Your task to perform on an android device: Go to eBay Image 0: 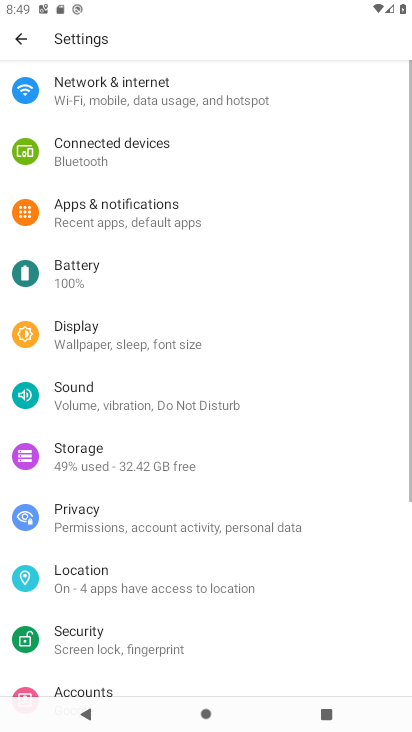
Step 0: press home button
Your task to perform on an android device: Go to eBay Image 1: 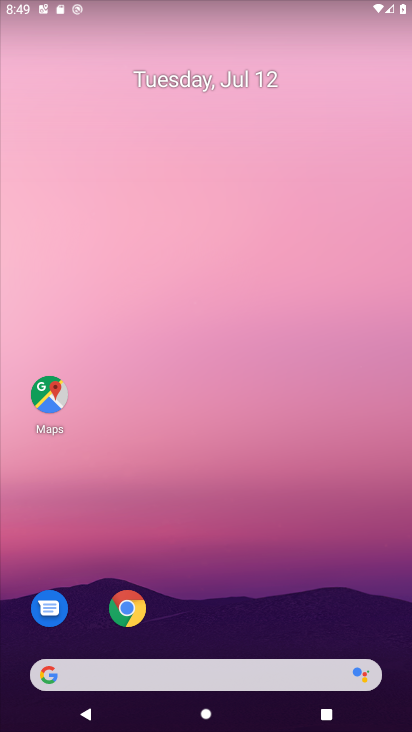
Step 1: click (121, 610)
Your task to perform on an android device: Go to eBay Image 2: 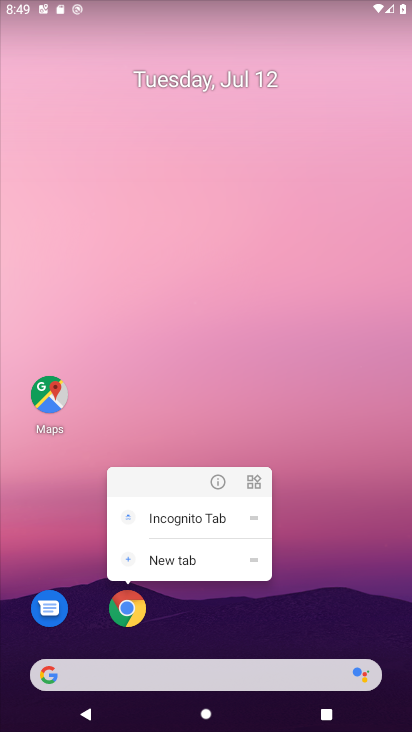
Step 2: click (121, 610)
Your task to perform on an android device: Go to eBay Image 3: 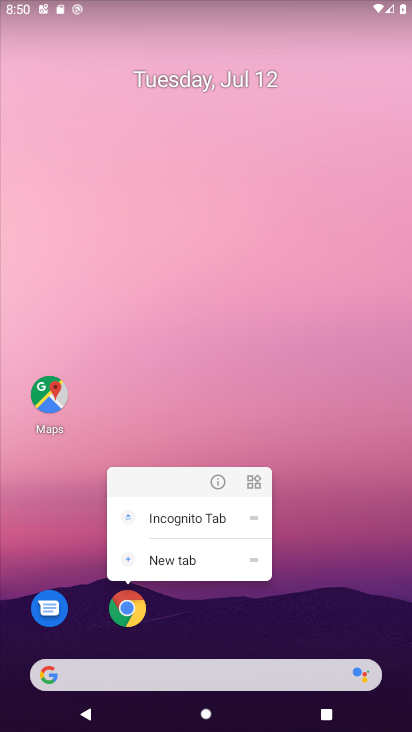
Step 3: click (151, 628)
Your task to perform on an android device: Go to eBay Image 4: 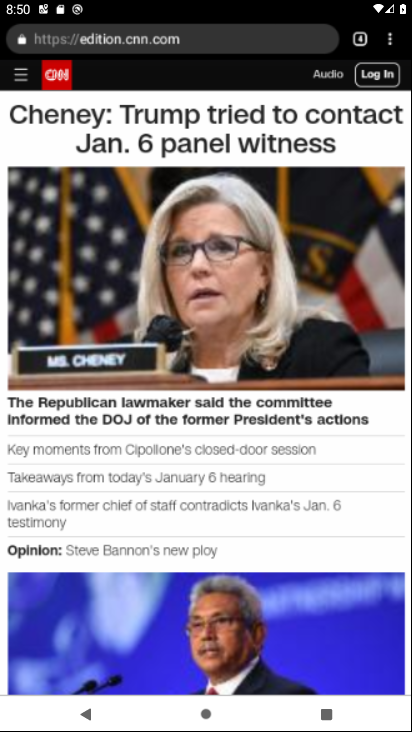
Step 4: click (128, 614)
Your task to perform on an android device: Go to eBay Image 5: 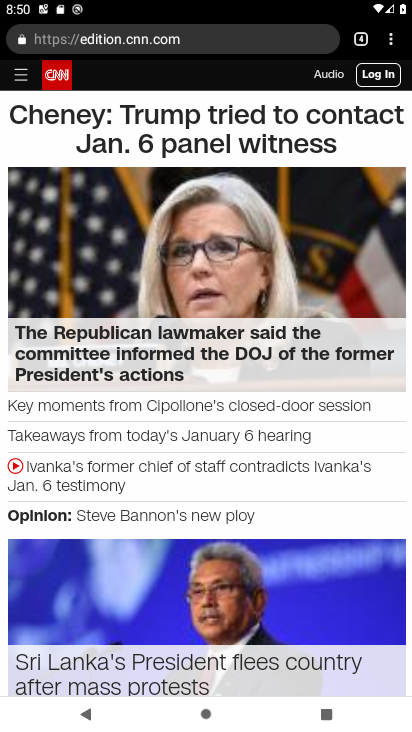
Step 5: drag from (391, 41) to (330, 77)
Your task to perform on an android device: Go to eBay Image 6: 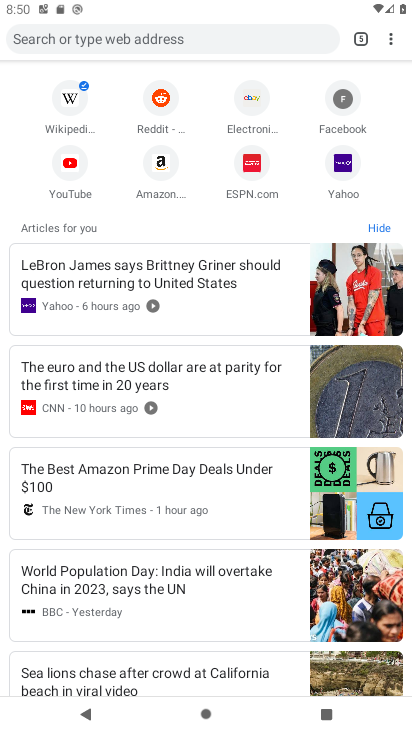
Step 6: click (148, 35)
Your task to perform on an android device: Go to eBay Image 7: 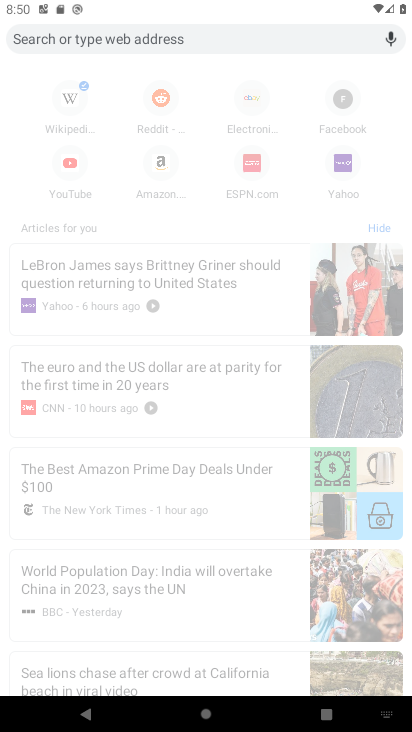
Step 7: type "ebay"
Your task to perform on an android device: Go to eBay Image 8: 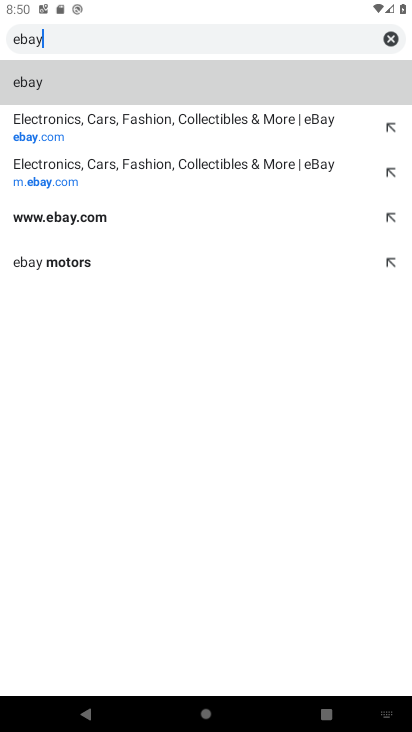
Step 8: click (80, 127)
Your task to perform on an android device: Go to eBay Image 9: 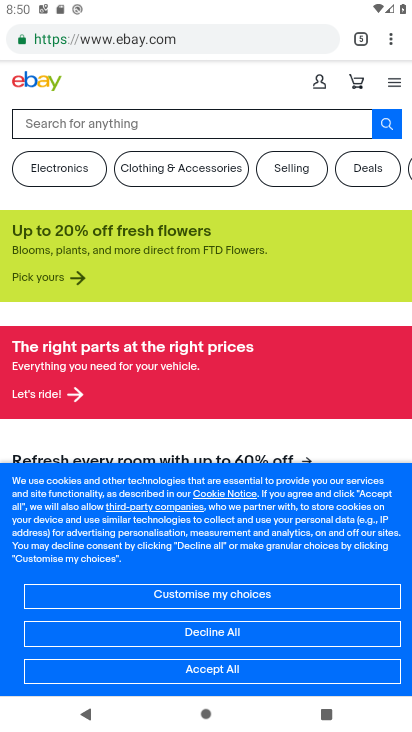
Step 9: click (235, 675)
Your task to perform on an android device: Go to eBay Image 10: 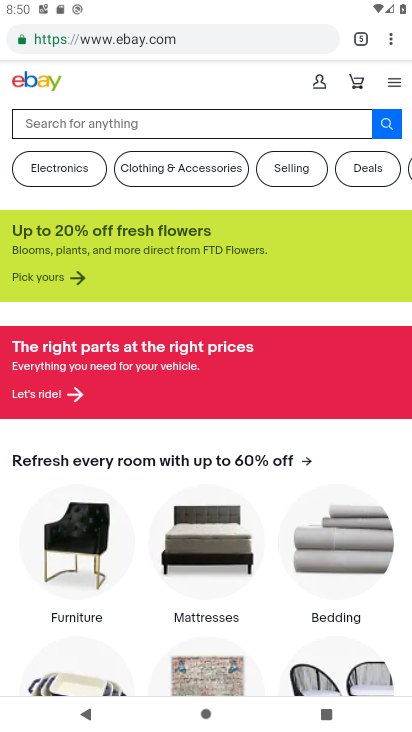
Step 10: task complete